Your task to perform on an android device: Go to Android settings Image 0: 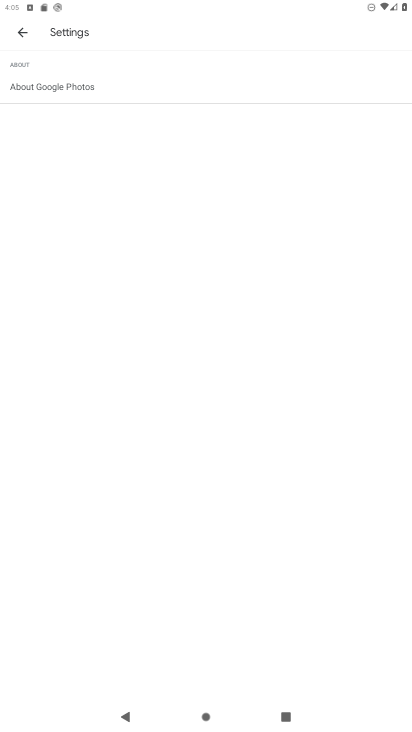
Step 0: press home button
Your task to perform on an android device: Go to Android settings Image 1: 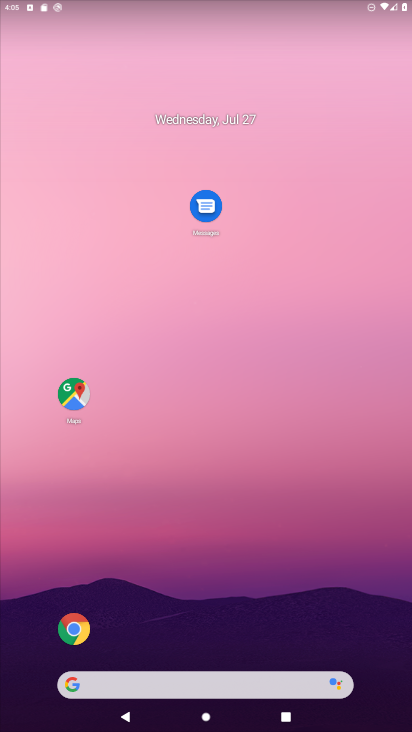
Step 1: drag from (206, 372) to (243, 113)
Your task to perform on an android device: Go to Android settings Image 2: 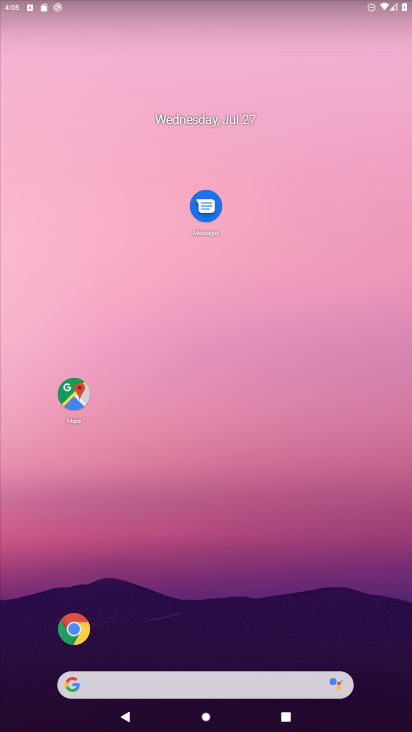
Step 2: drag from (160, 649) to (148, 307)
Your task to perform on an android device: Go to Android settings Image 3: 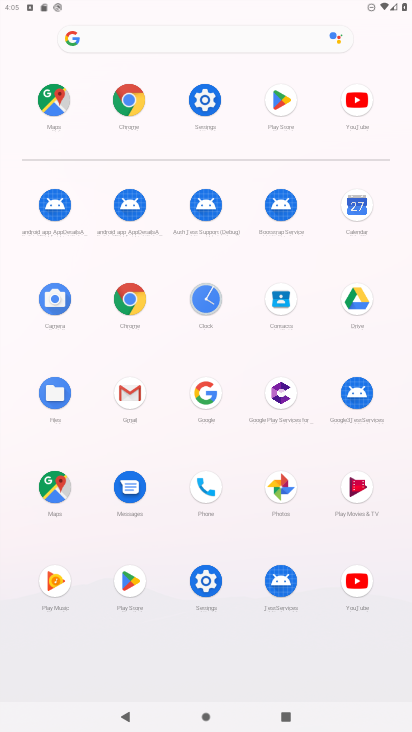
Step 3: click (191, 112)
Your task to perform on an android device: Go to Android settings Image 4: 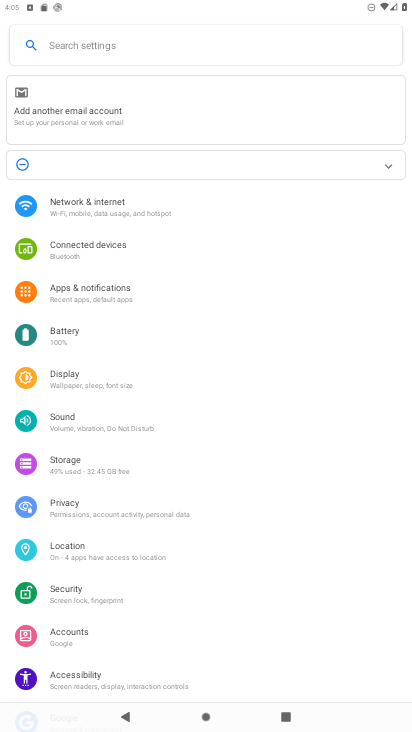
Step 4: task complete